Your task to perform on an android device: change notifications settings Image 0: 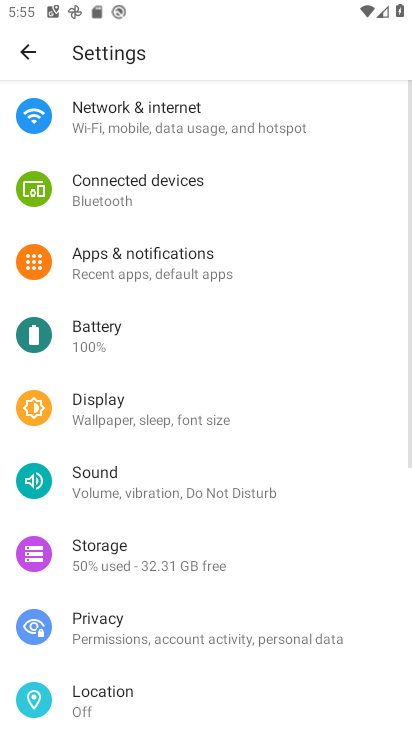
Step 0: press home button
Your task to perform on an android device: change notifications settings Image 1: 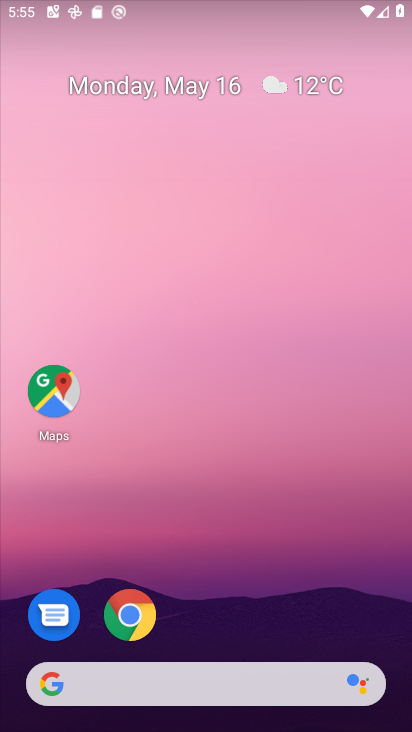
Step 1: drag from (221, 556) to (329, 9)
Your task to perform on an android device: change notifications settings Image 2: 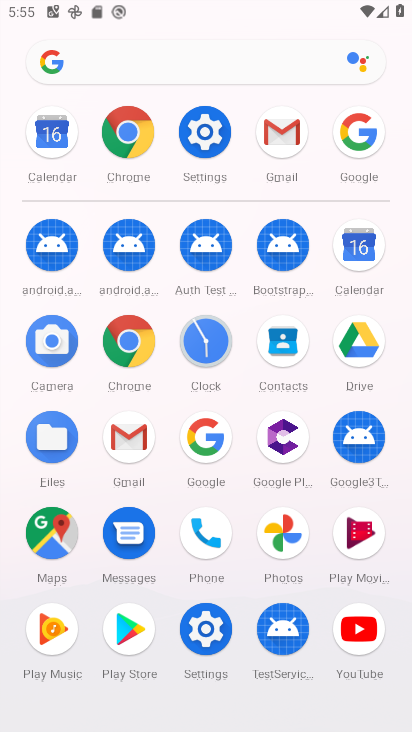
Step 2: click (205, 152)
Your task to perform on an android device: change notifications settings Image 3: 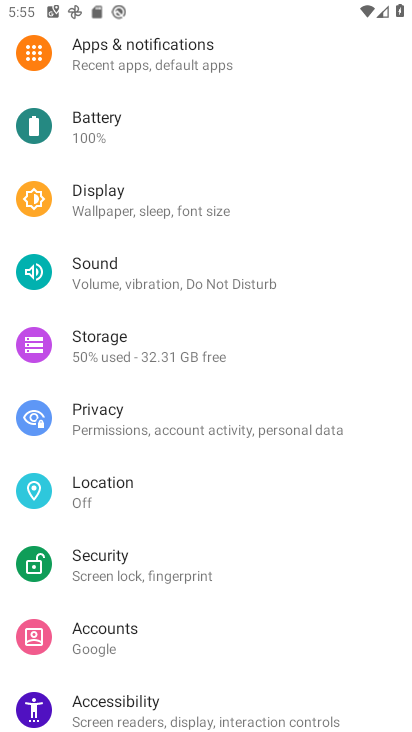
Step 3: click (165, 79)
Your task to perform on an android device: change notifications settings Image 4: 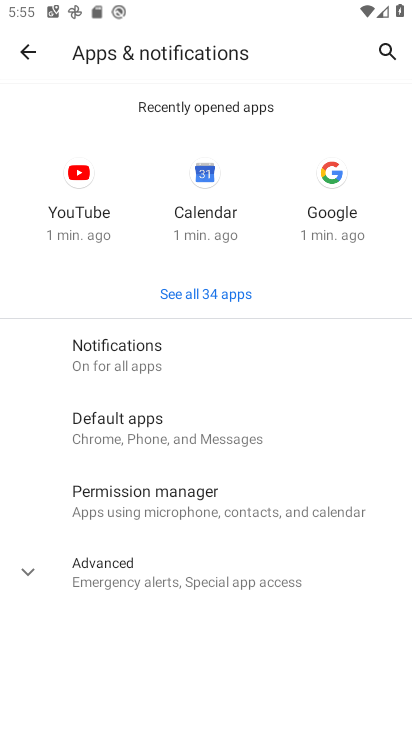
Step 4: click (131, 366)
Your task to perform on an android device: change notifications settings Image 5: 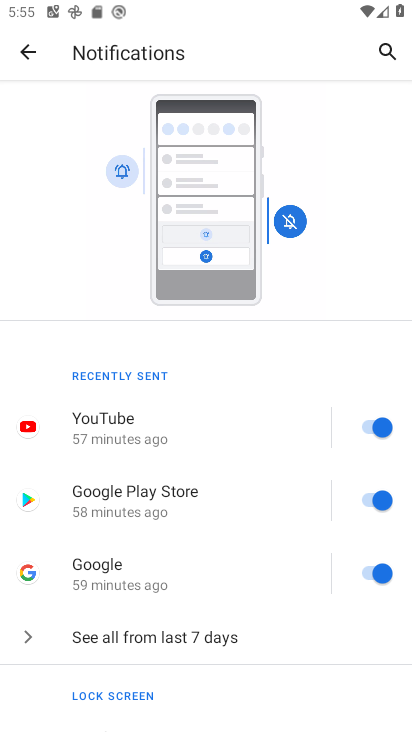
Step 5: drag from (201, 631) to (324, 201)
Your task to perform on an android device: change notifications settings Image 6: 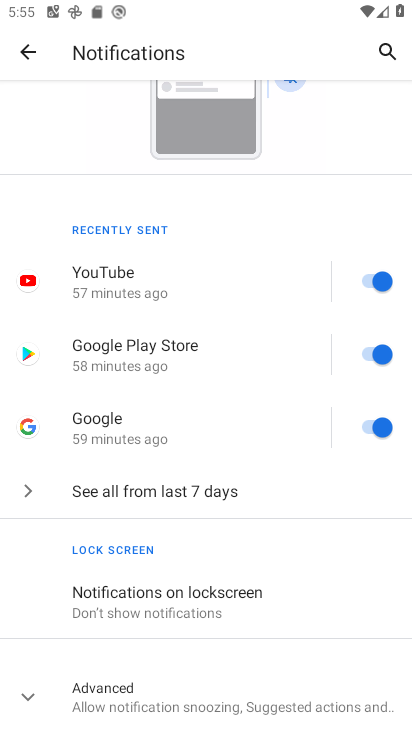
Step 6: click (190, 616)
Your task to perform on an android device: change notifications settings Image 7: 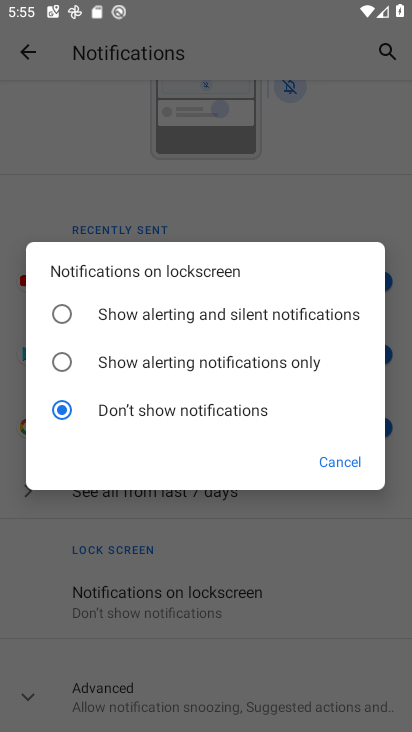
Step 7: click (73, 318)
Your task to perform on an android device: change notifications settings Image 8: 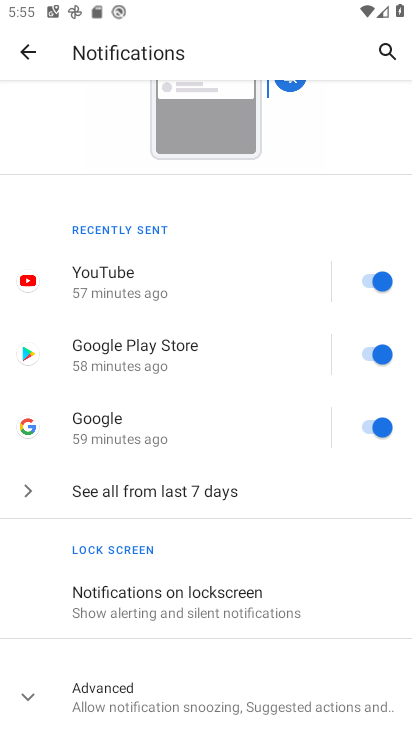
Step 8: task complete